Your task to perform on an android device: see tabs open on other devices in the chrome app Image 0: 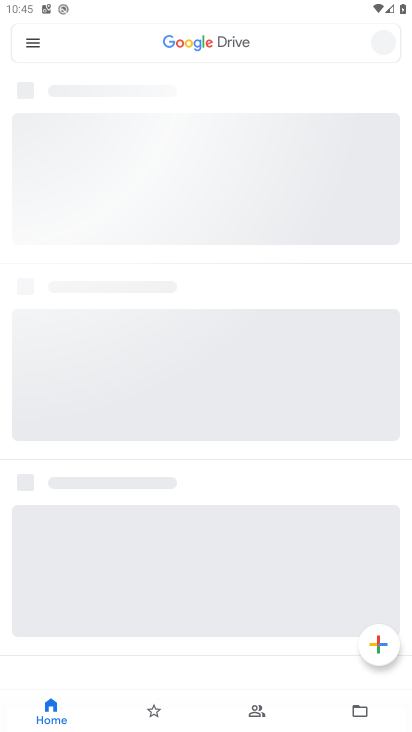
Step 0: press home button
Your task to perform on an android device: see tabs open on other devices in the chrome app Image 1: 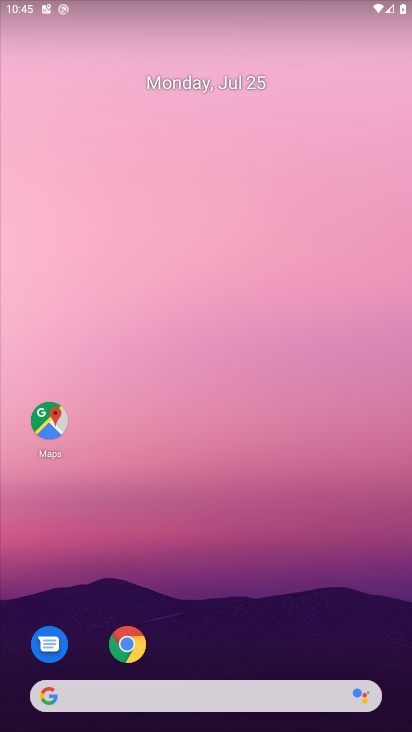
Step 1: click (139, 660)
Your task to perform on an android device: see tabs open on other devices in the chrome app Image 2: 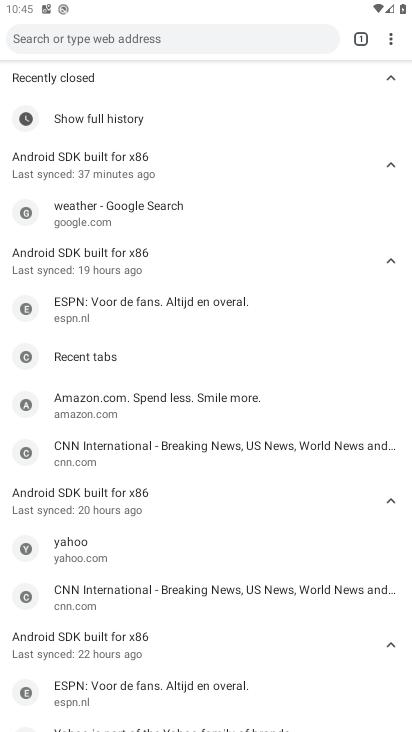
Step 2: task complete